Your task to perform on an android device: star an email in the gmail app Image 0: 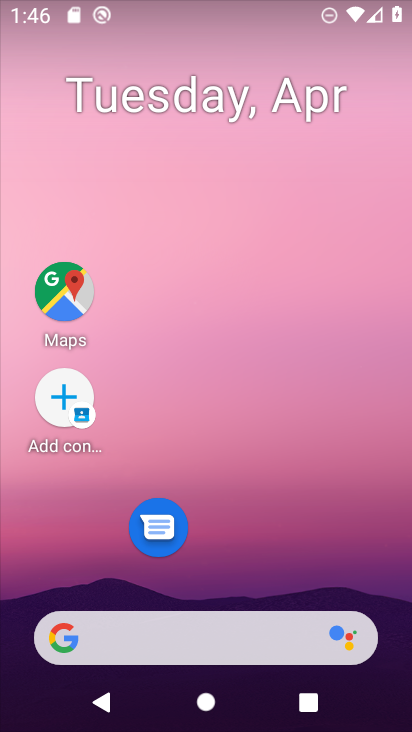
Step 0: drag from (240, 572) to (278, 52)
Your task to perform on an android device: star an email in the gmail app Image 1: 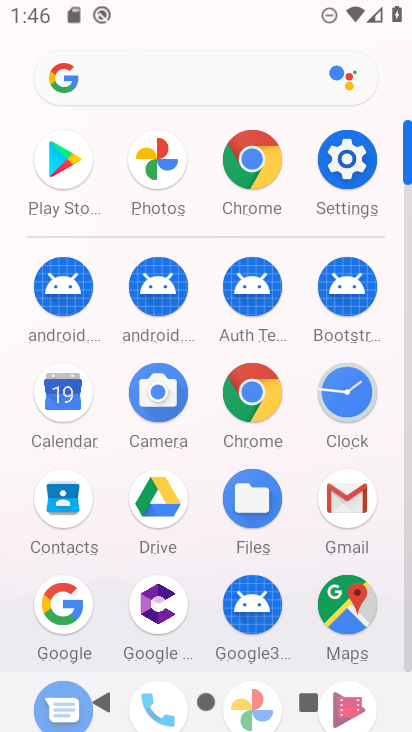
Step 1: click (352, 497)
Your task to perform on an android device: star an email in the gmail app Image 2: 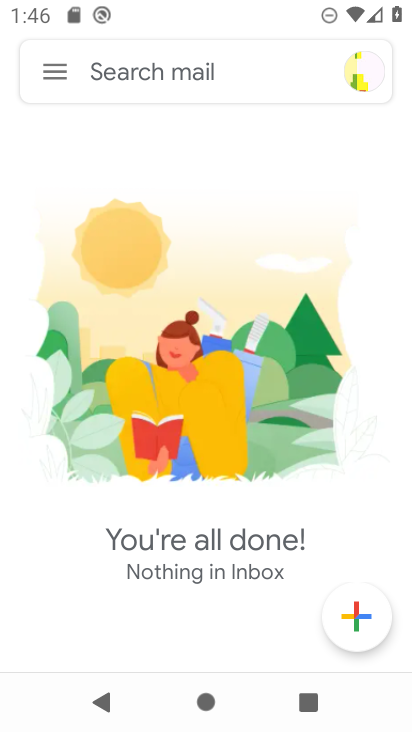
Step 2: click (50, 74)
Your task to perform on an android device: star an email in the gmail app Image 3: 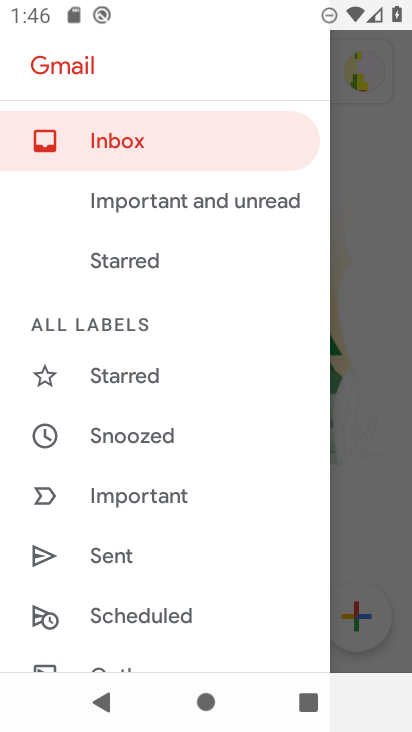
Step 3: drag from (147, 446) to (173, 362)
Your task to perform on an android device: star an email in the gmail app Image 4: 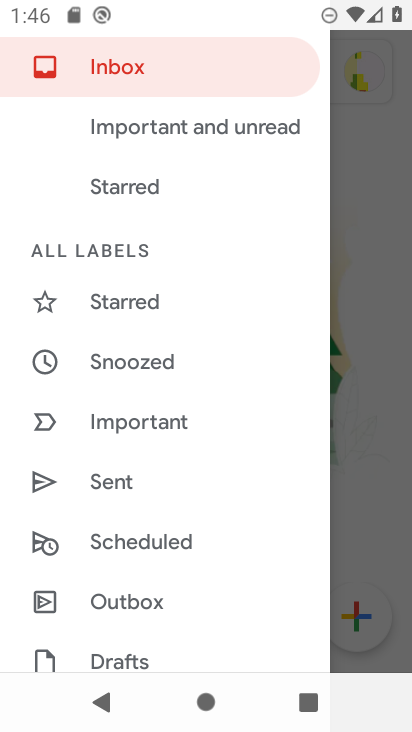
Step 4: drag from (167, 461) to (215, 385)
Your task to perform on an android device: star an email in the gmail app Image 5: 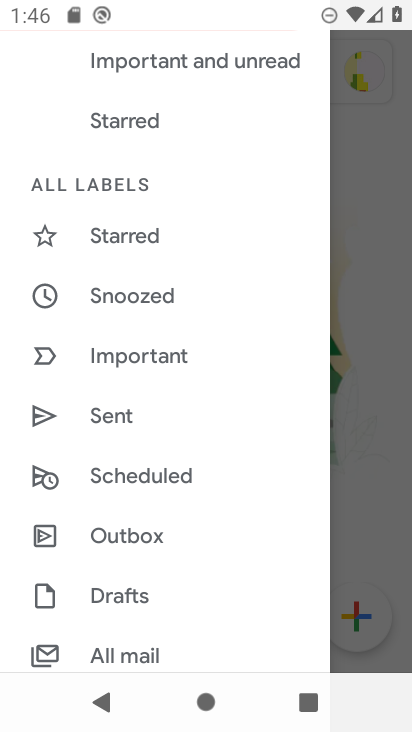
Step 5: drag from (155, 479) to (191, 410)
Your task to perform on an android device: star an email in the gmail app Image 6: 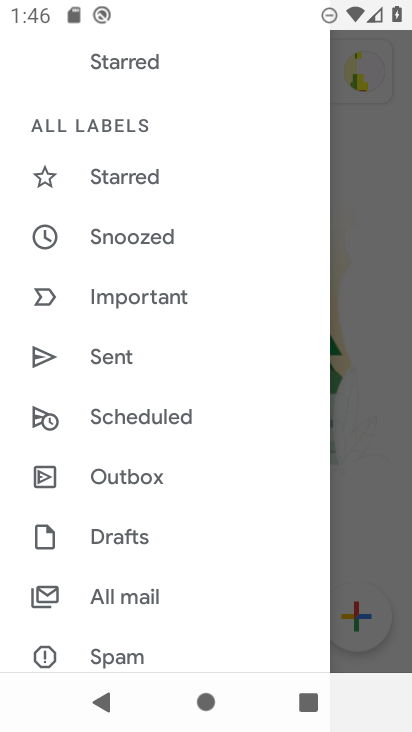
Step 6: click (121, 588)
Your task to perform on an android device: star an email in the gmail app Image 7: 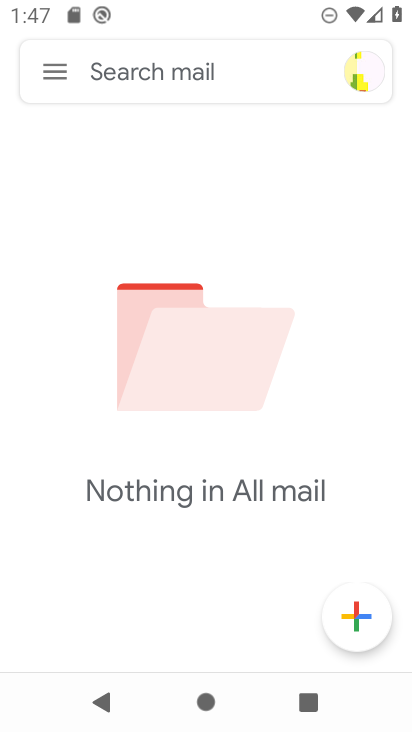
Step 7: task complete